Your task to perform on an android device: Open Google Chrome Image 0: 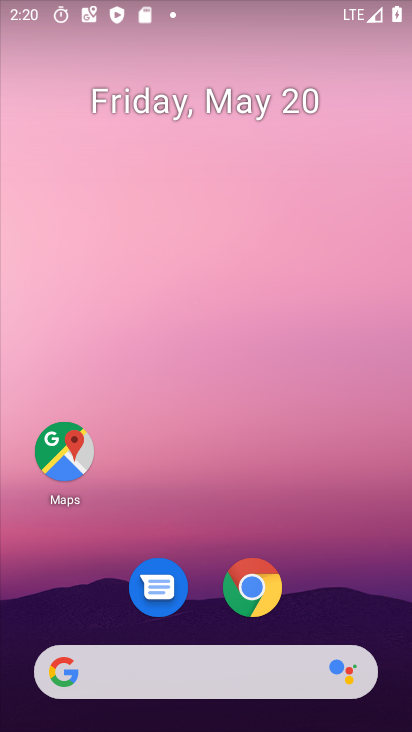
Step 0: click (260, 598)
Your task to perform on an android device: Open Google Chrome Image 1: 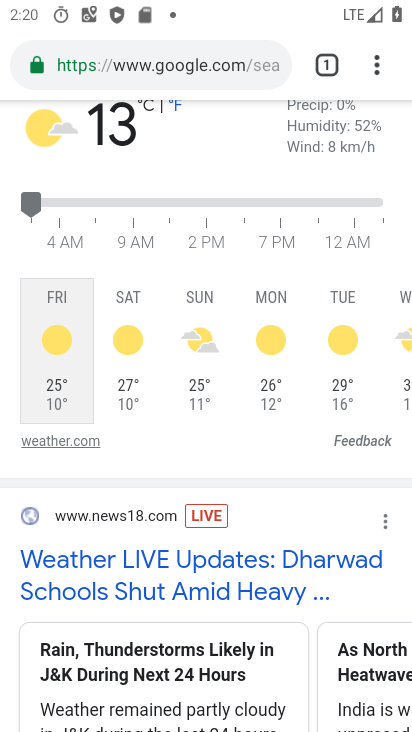
Step 1: task complete